Your task to perform on an android device: turn off notifications in google photos Image 0: 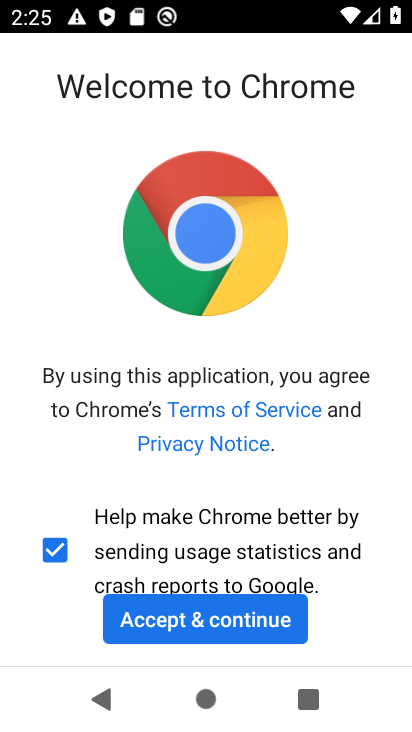
Step 0: press home button
Your task to perform on an android device: turn off notifications in google photos Image 1: 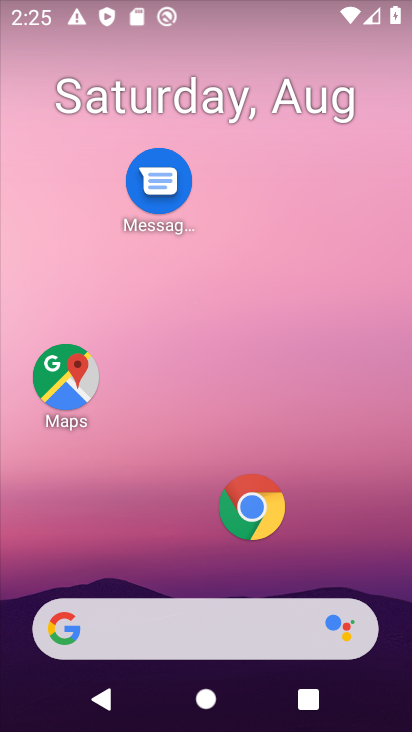
Step 1: drag from (163, 568) to (187, 4)
Your task to perform on an android device: turn off notifications in google photos Image 2: 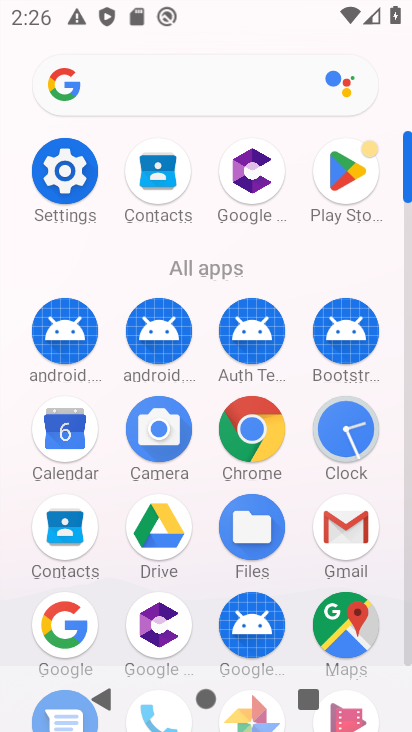
Step 2: drag from (208, 600) to (212, 137)
Your task to perform on an android device: turn off notifications in google photos Image 3: 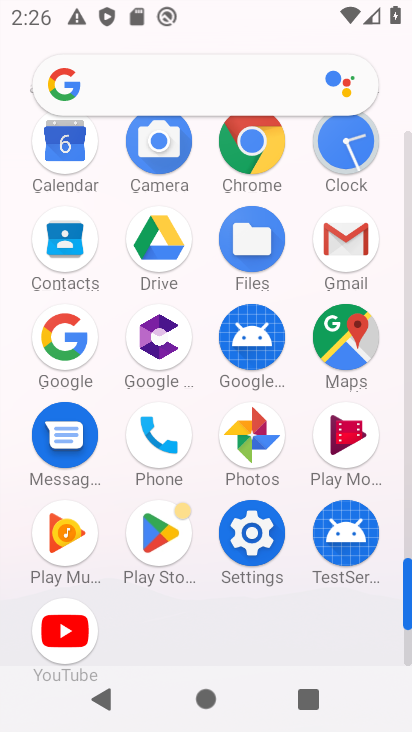
Step 3: click (256, 440)
Your task to perform on an android device: turn off notifications in google photos Image 4: 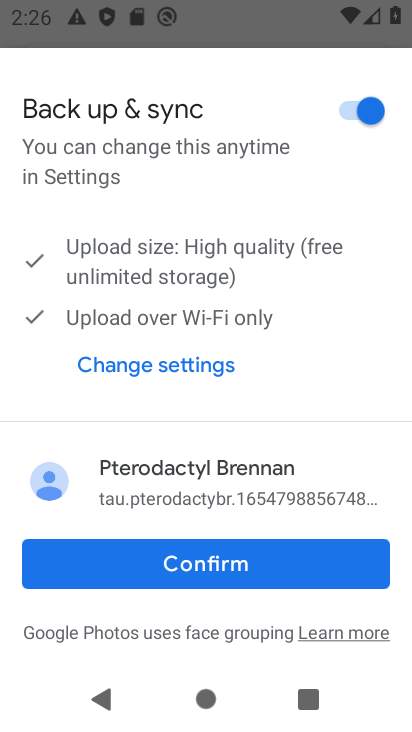
Step 4: click (215, 561)
Your task to perform on an android device: turn off notifications in google photos Image 5: 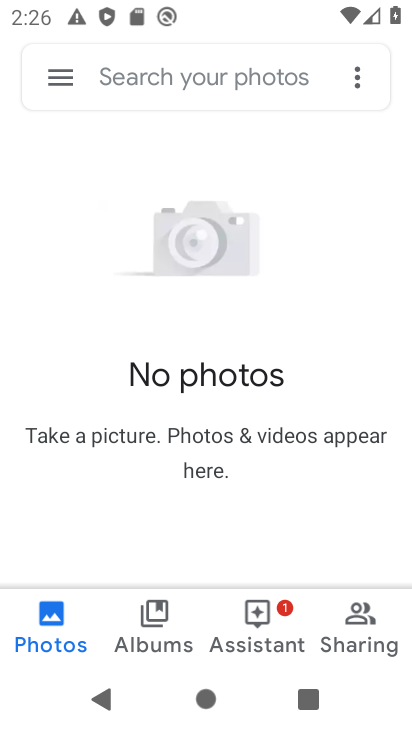
Step 5: click (60, 80)
Your task to perform on an android device: turn off notifications in google photos Image 6: 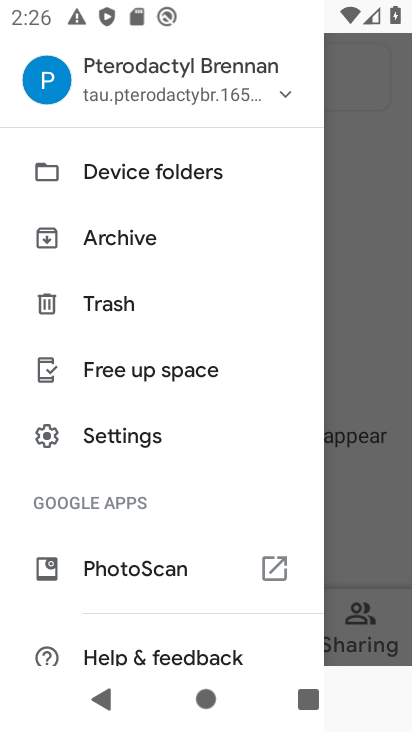
Step 6: click (138, 443)
Your task to perform on an android device: turn off notifications in google photos Image 7: 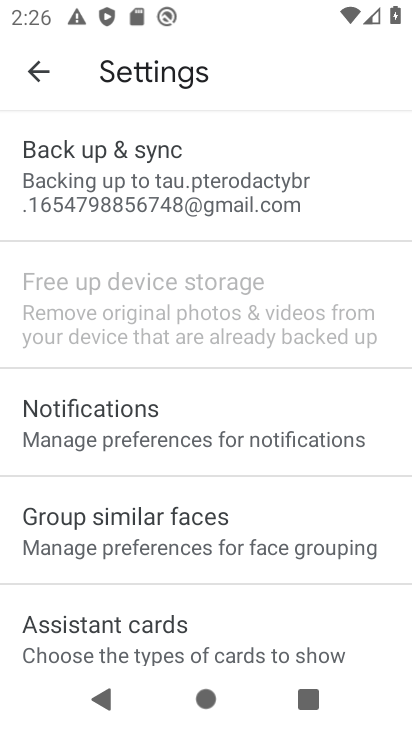
Step 7: click (118, 436)
Your task to perform on an android device: turn off notifications in google photos Image 8: 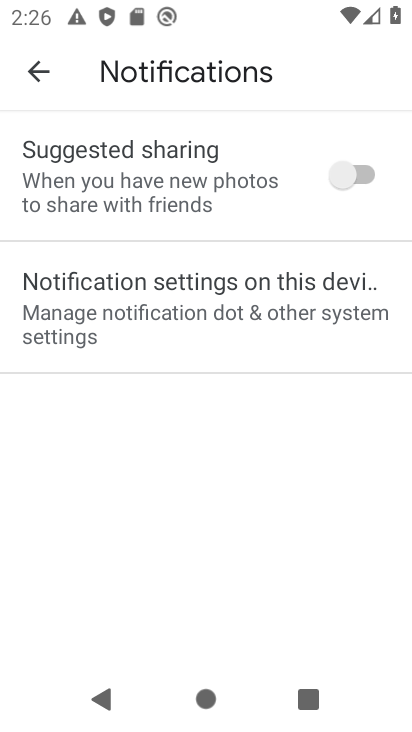
Step 8: click (126, 286)
Your task to perform on an android device: turn off notifications in google photos Image 9: 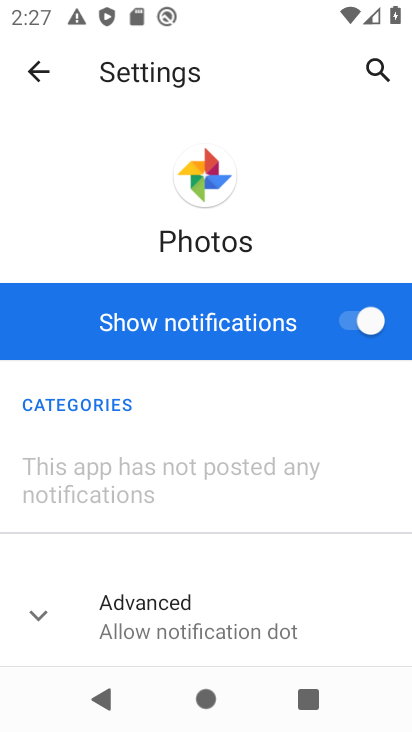
Step 9: click (337, 320)
Your task to perform on an android device: turn off notifications in google photos Image 10: 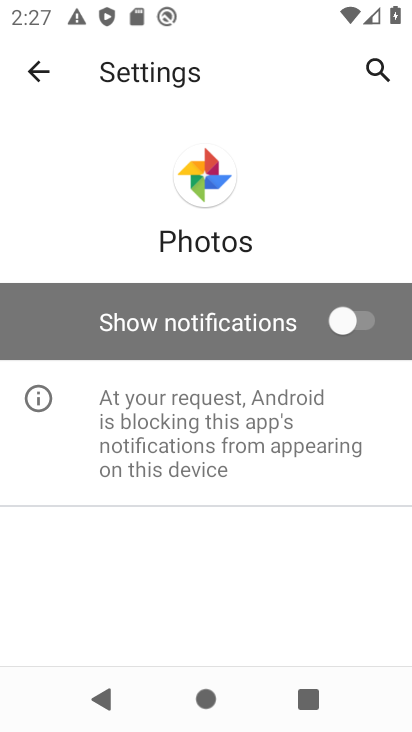
Step 10: task complete